Your task to perform on an android device: add a contact in the contacts app Image 0: 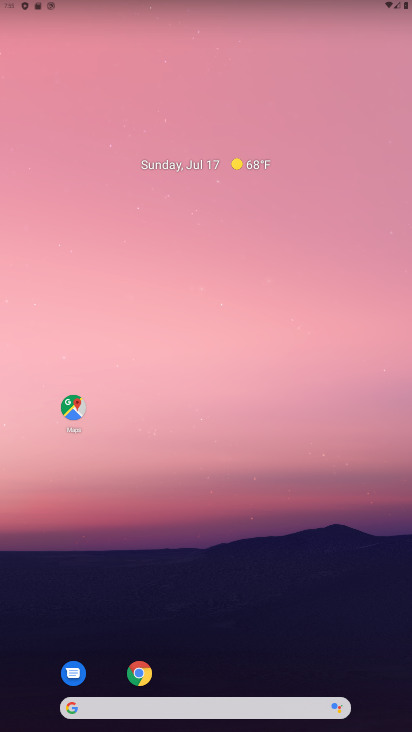
Step 0: drag from (236, 555) to (33, 151)
Your task to perform on an android device: add a contact in the contacts app Image 1: 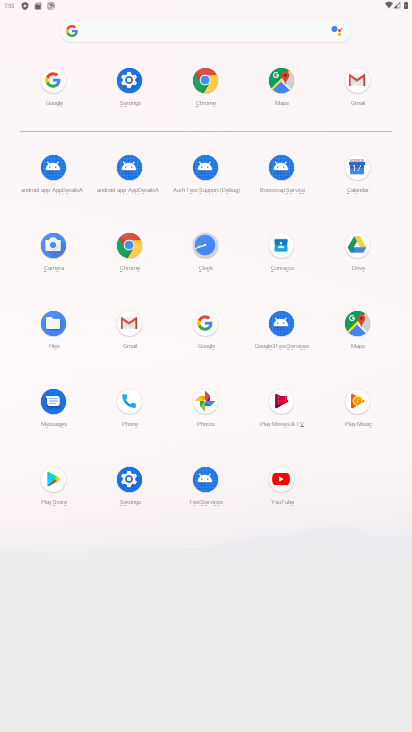
Step 1: click (124, 395)
Your task to perform on an android device: add a contact in the contacts app Image 2: 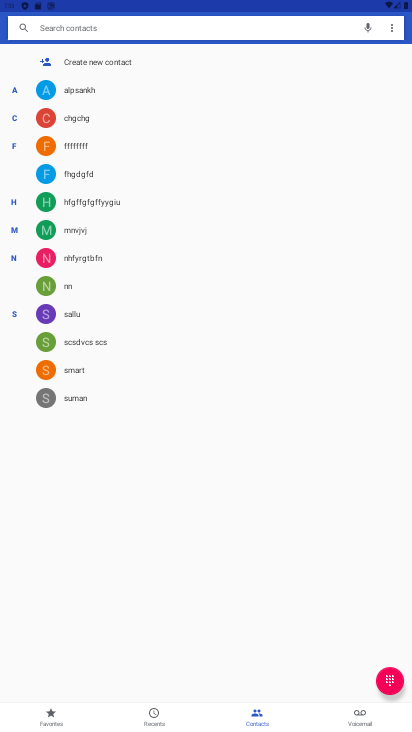
Step 2: task complete